Your task to perform on an android device: open app "Skype" (install if not already installed) and go to login screen Image 0: 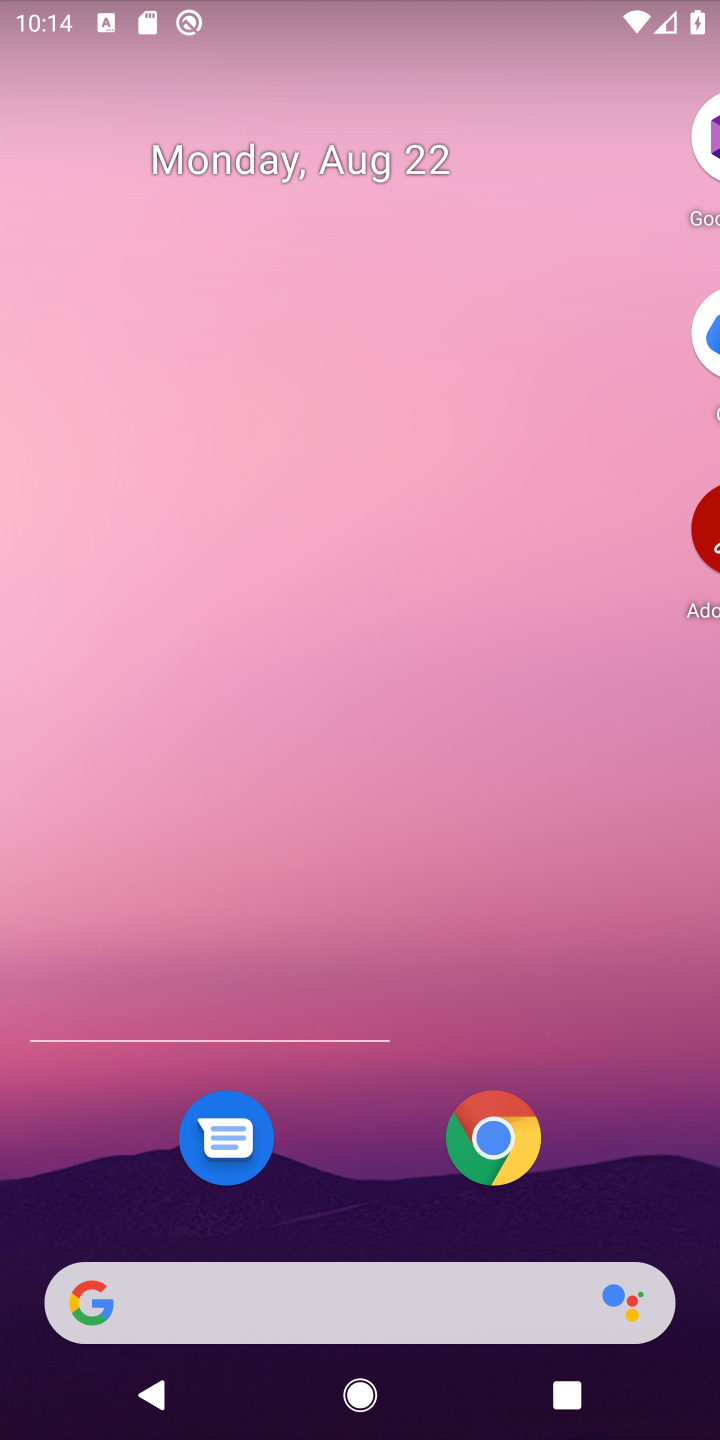
Step 0: press home button
Your task to perform on an android device: open app "Skype" (install if not already installed) and go to login screen Image 1: 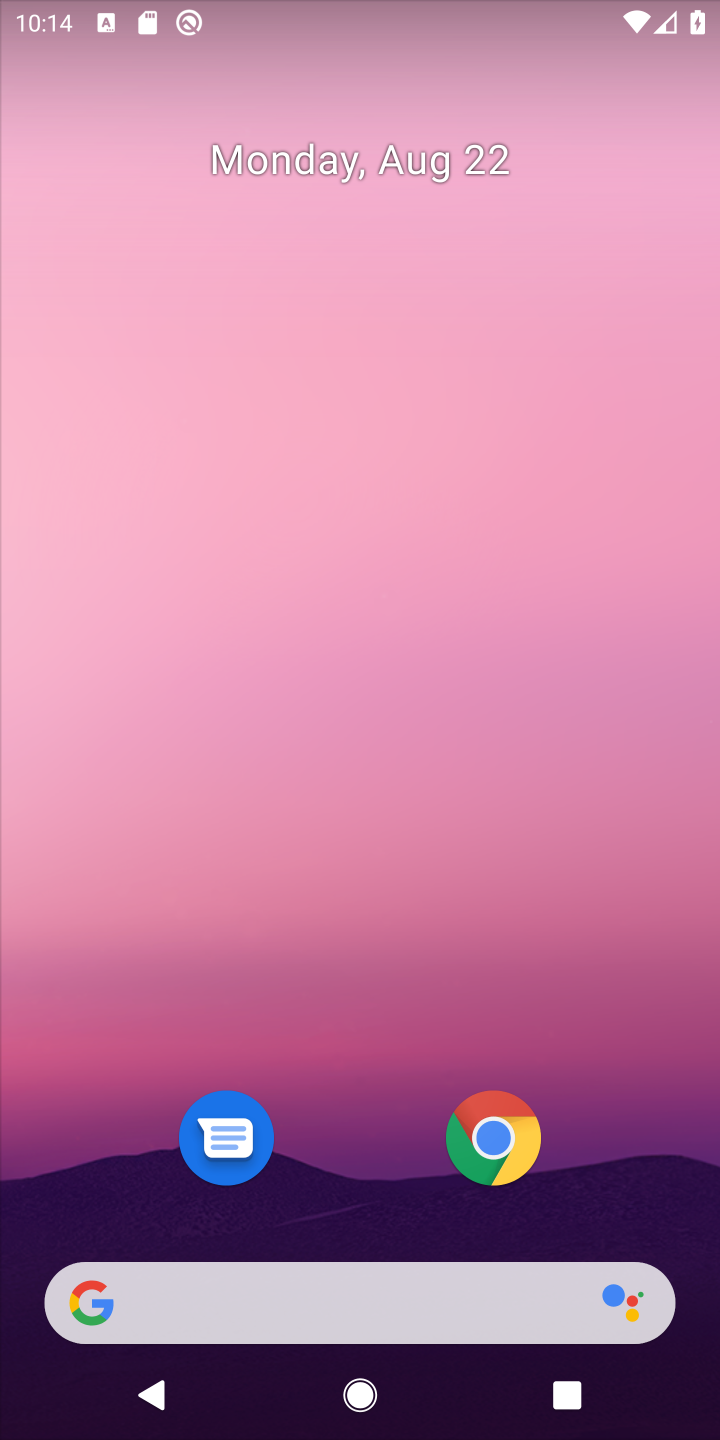
Step 1: drag from (360, 1200) to (409, 139)
Your task to perform on an android device: open app "Skype" (install if not already installed) and go to login screen Image 2: 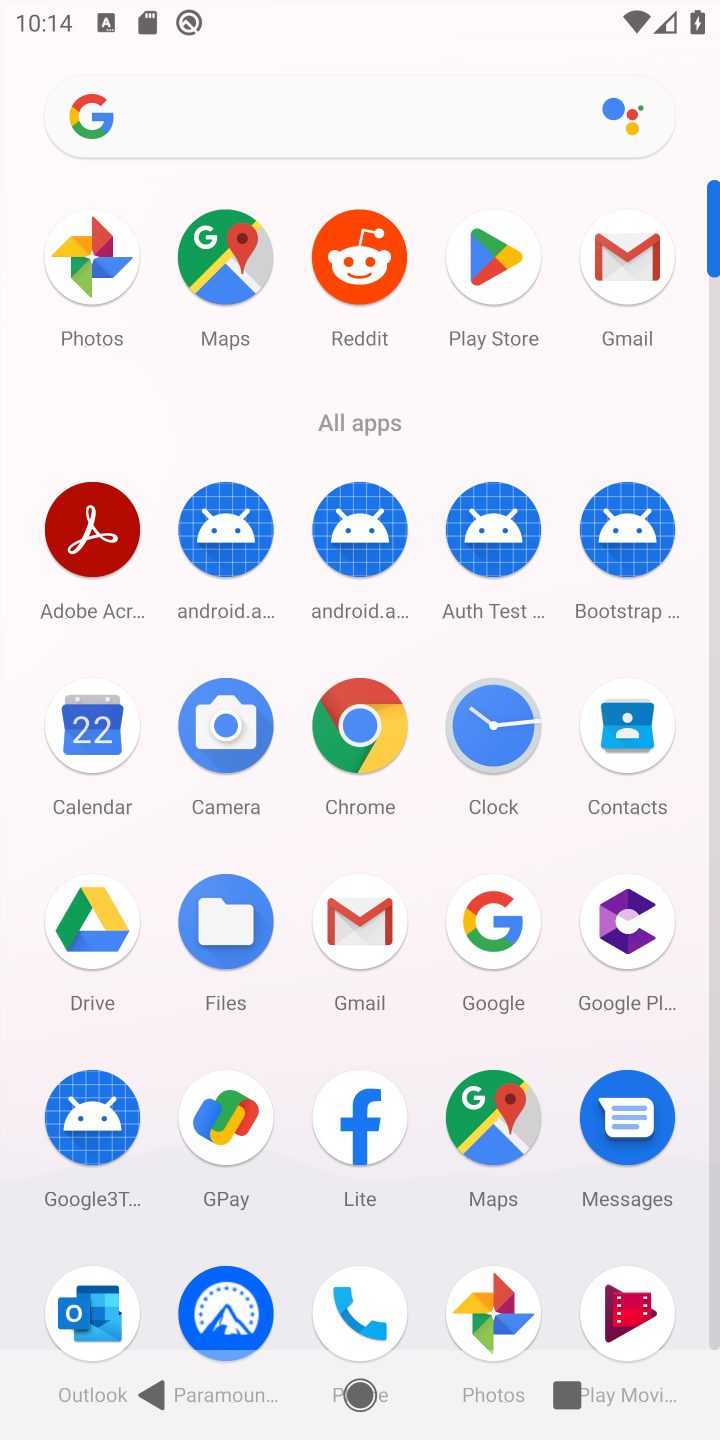
Step 2: click (486, 252)
Your task to perform on an android device: open app "Skype" (install if not already installed) and go to login screen Image 3: 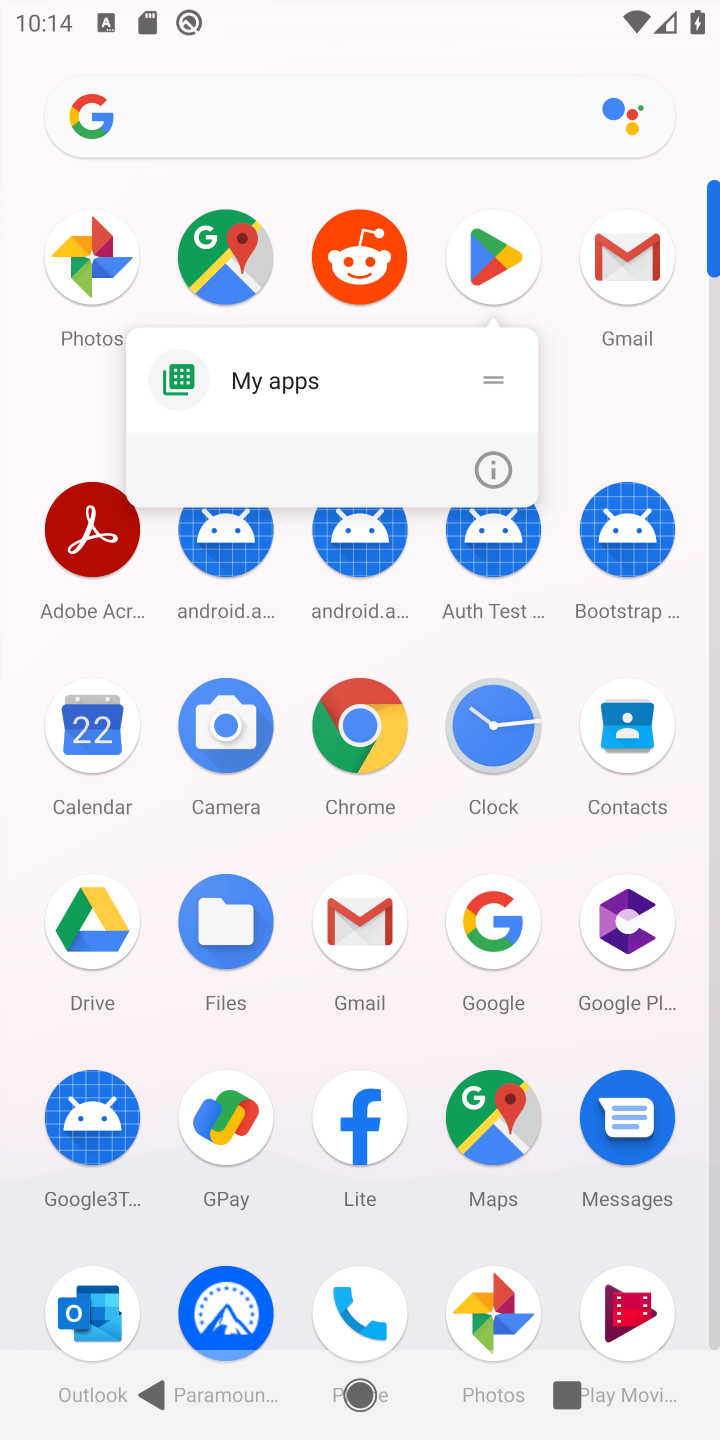
Step 3: click (486, 252)
Your task to perform on an android device: open app "Skype" (install if not already installed) and go to login screen Image 4: 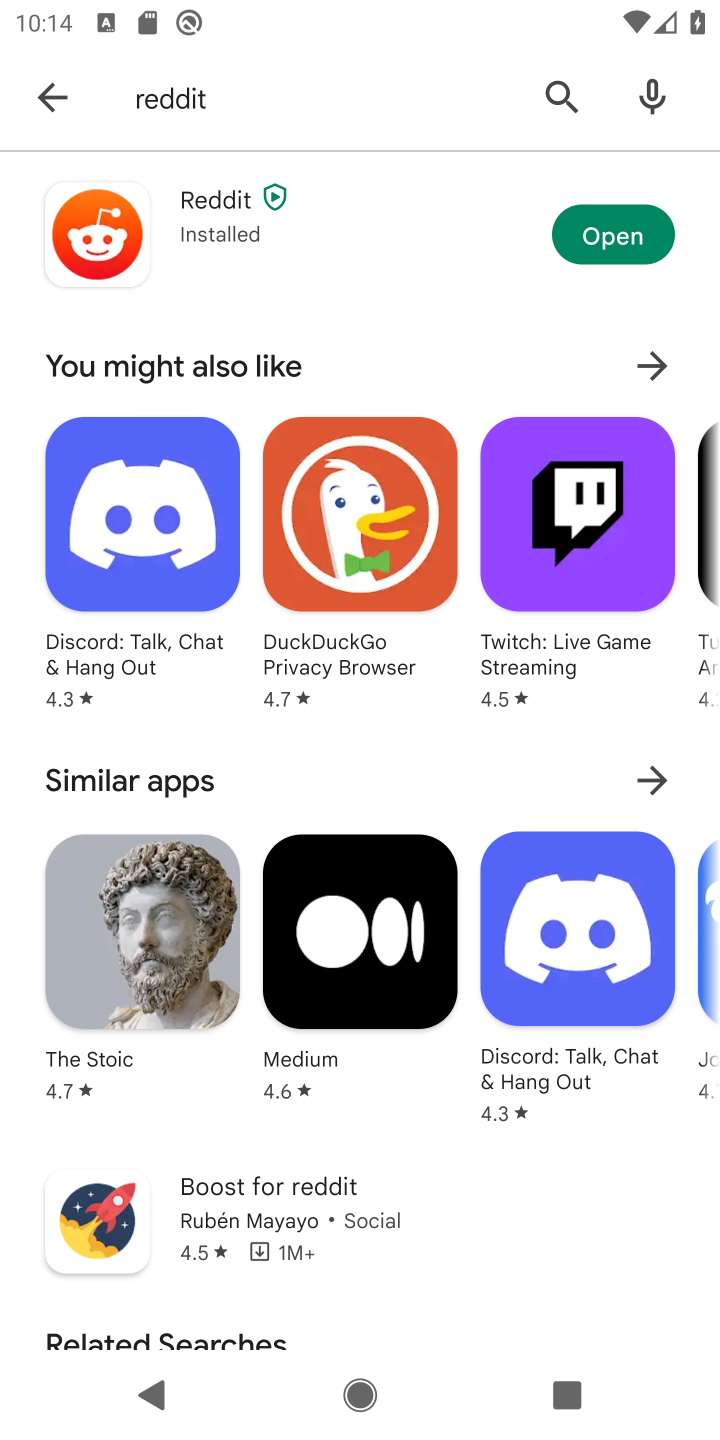
Step 4: click (545, 87)
Your task to perform on an android device: open app "Skype" (install if not already installed) and go to login screen Image 5: 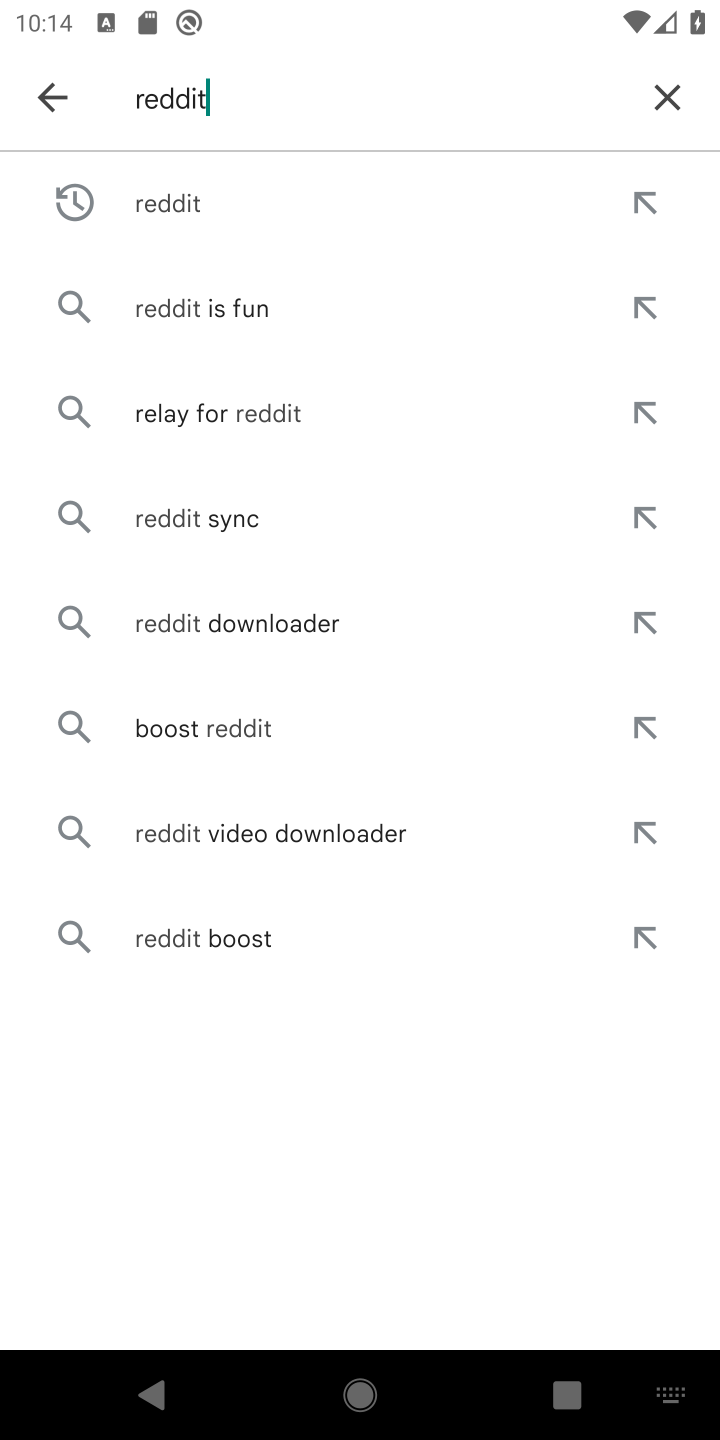
Step 5: click (668, 98)
Your task to perform on an android device: open app "Skype" (install if not already installed) and go to login screen Image 6: 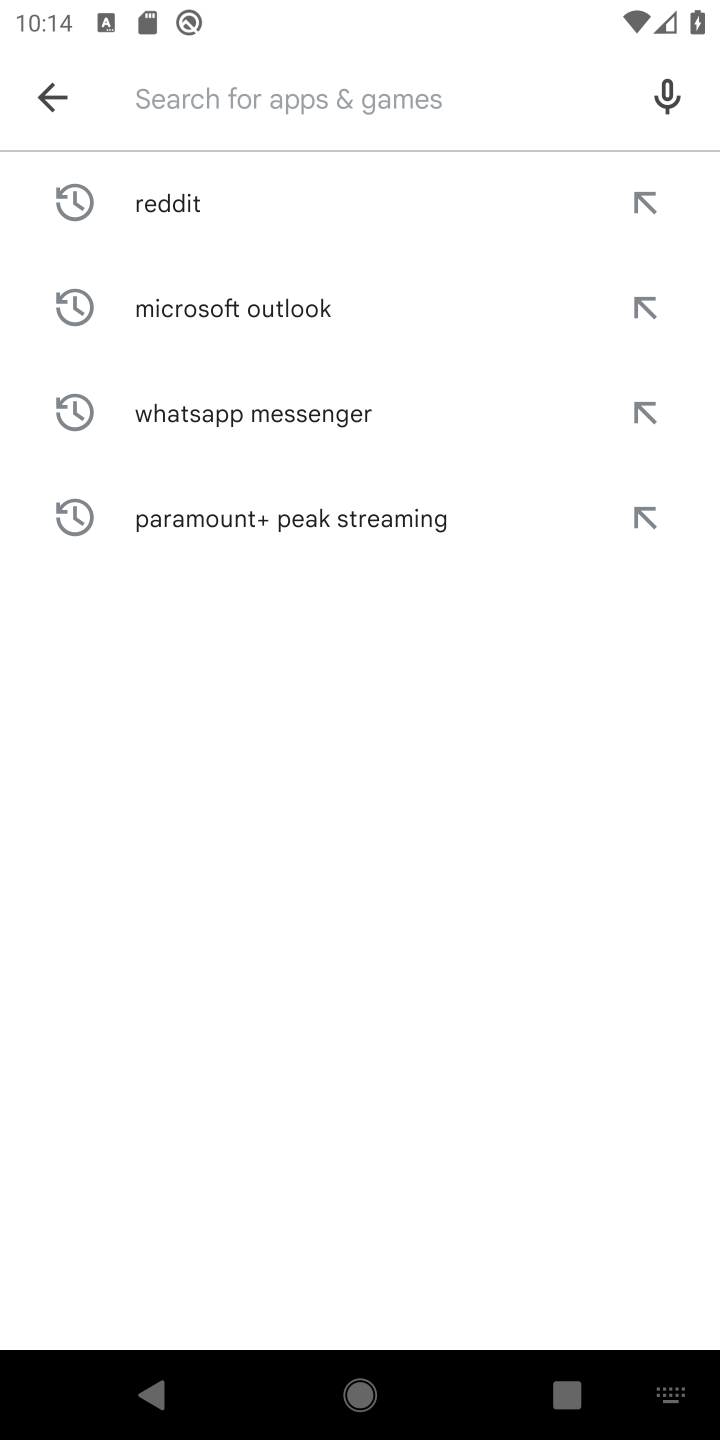
Step 6: type "Skype"
Your task to perform on an android device: open app "Skype" (install if not already installed) and go to login screen Image 7: 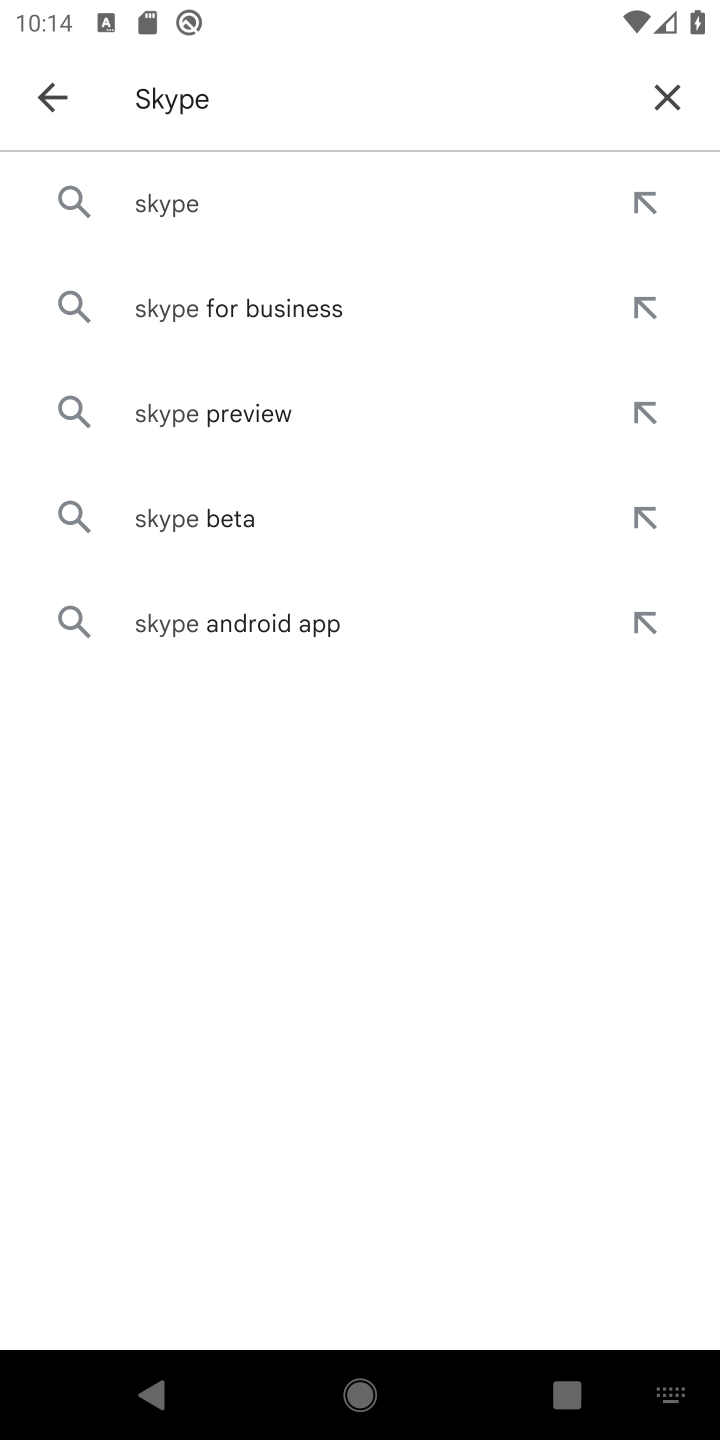
Step 7: click (220, 192)
Your task to perform on an android device: open app "Skype" (install if not already installed) and go to login screen Image 8: 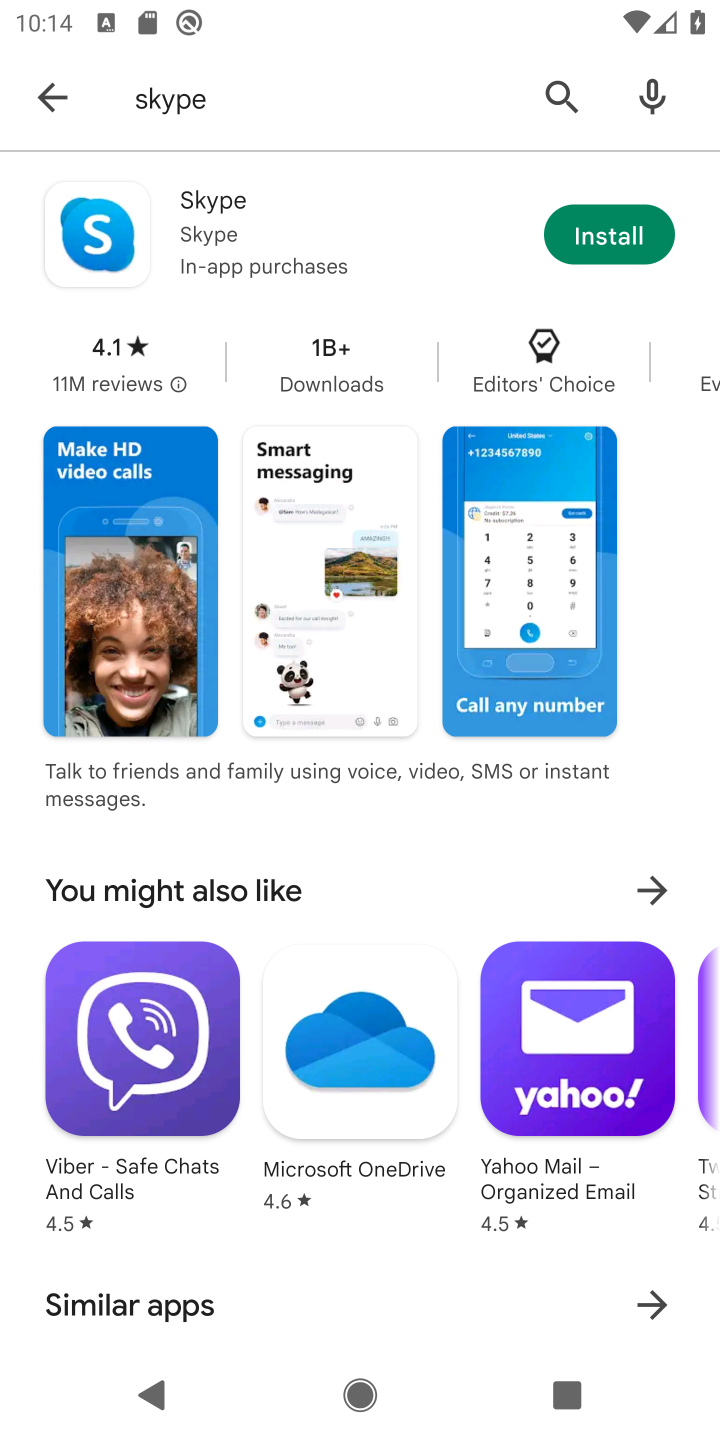
Step 8: click (610, 233)
Your task to perform on an android device: open app "Skype" (install if not already installed) and go to login screen Image 9: 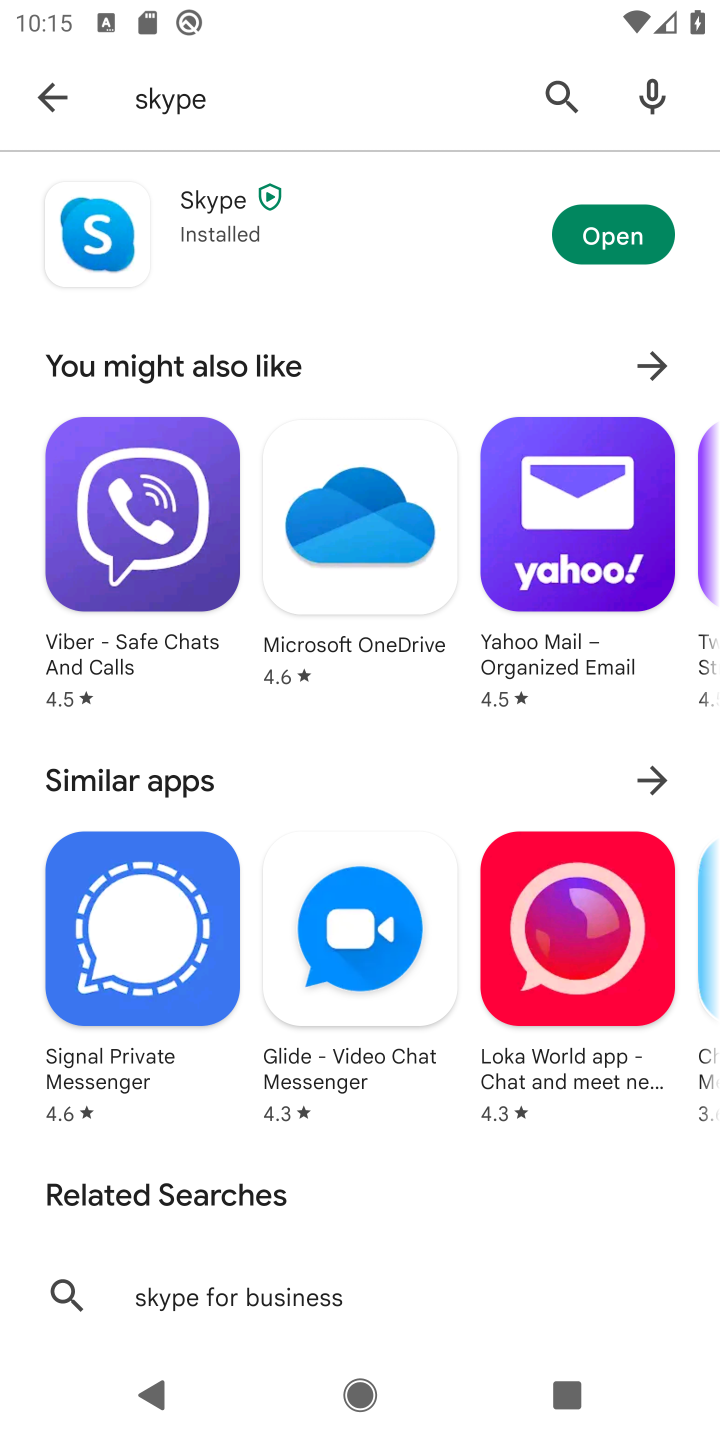
Step 9: click (621, 234)
Your task to perform on an android device: open app "Skype" (install if not already installed) and go to login screen Image 10: 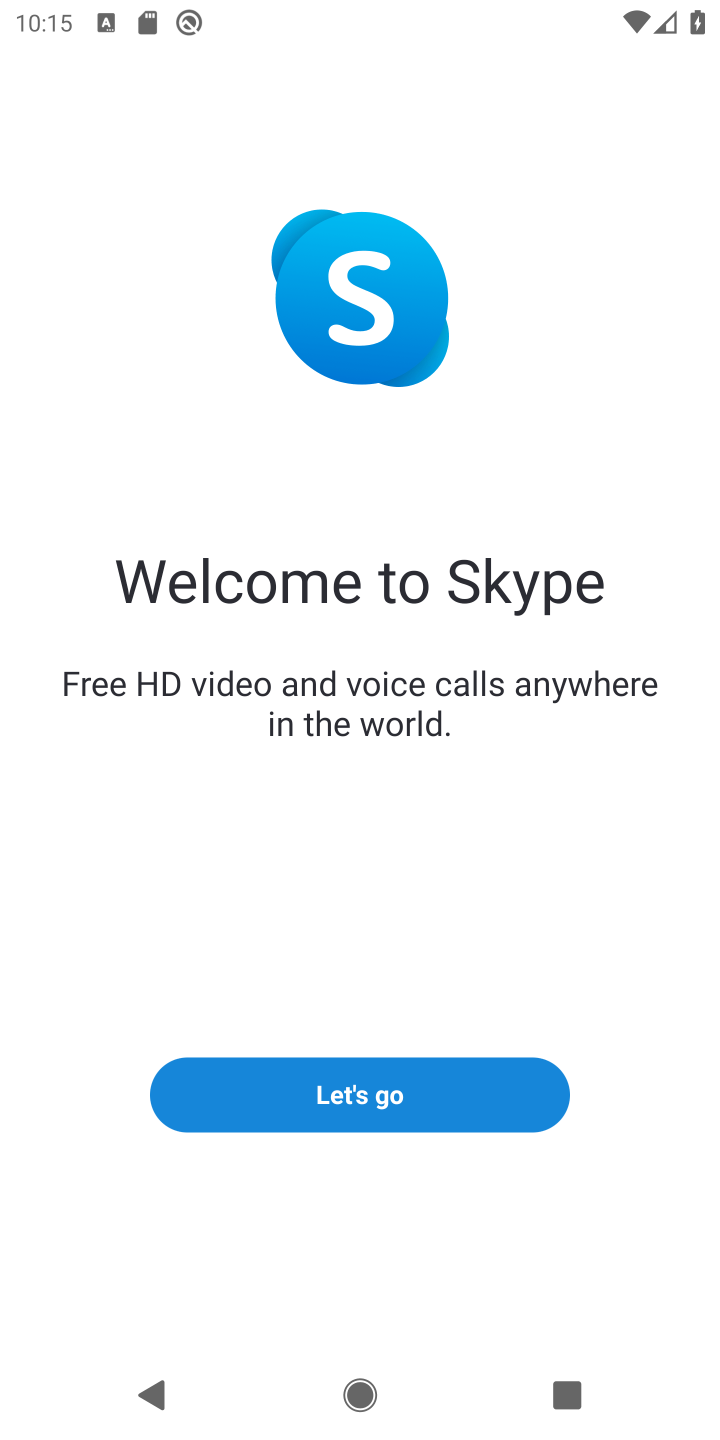
Step 10: click (368, 1096)
Your task to perform on an android device: open app "Skype" (install if not already installed) and go to login screen Image 11: 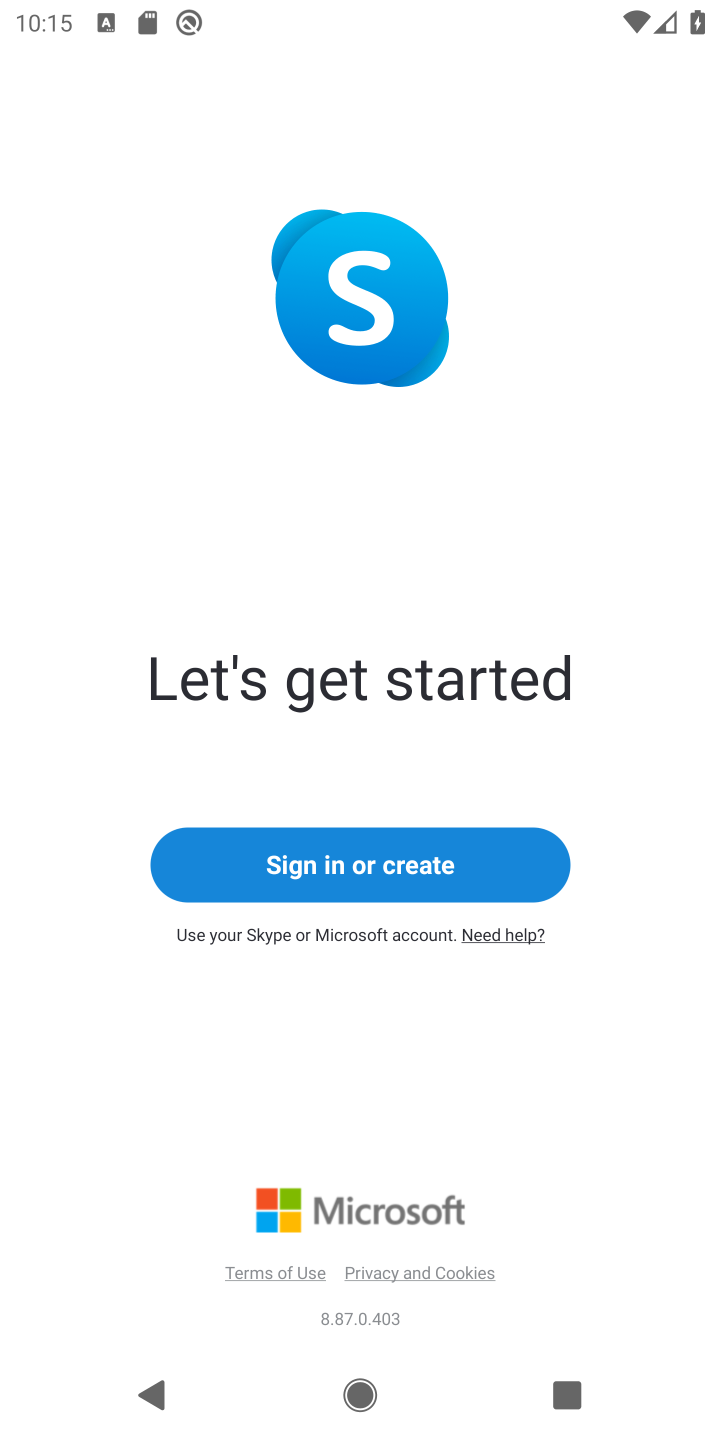
Step 11: click (349, 866)
Your task to perform on an android device: open app "Skype" (install if not already installed) and go to login screen Image 12: 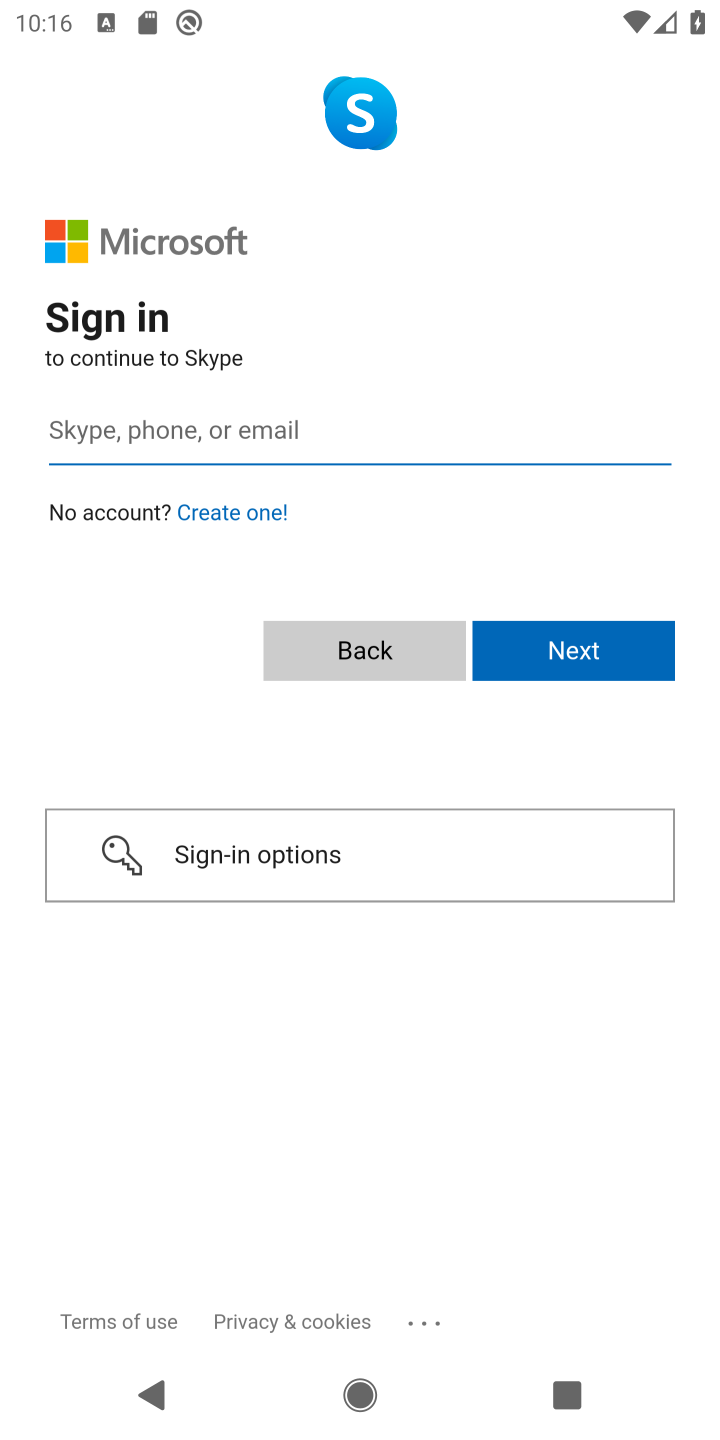
Step 12: task complete